Your task to perform on an android device: Search for "acer nitro" on bestbuy, select the first entry, add it to the cart, then select checkout. Image 0: 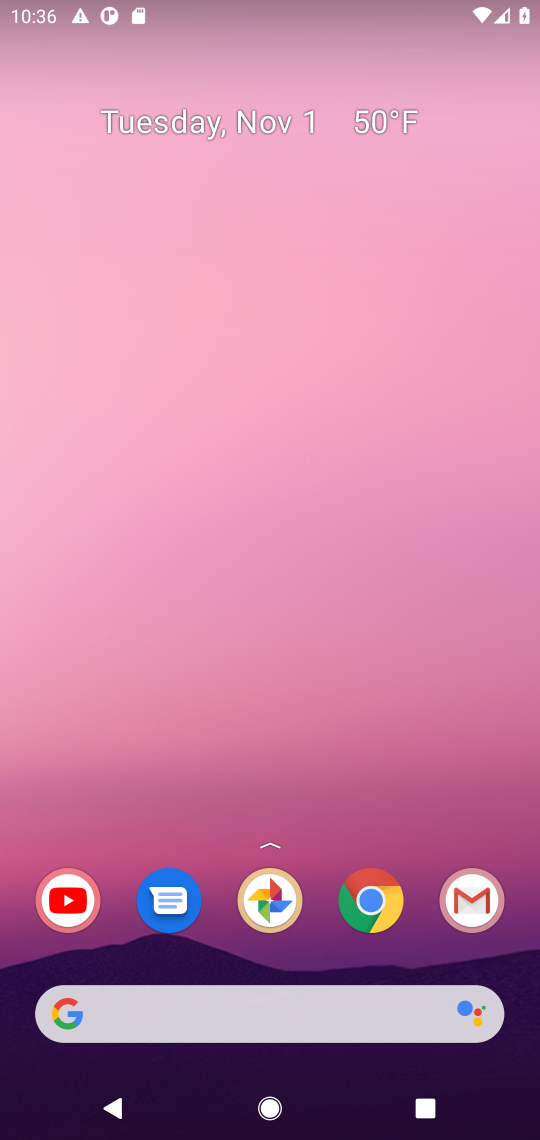
Step 0: click (369, 883)
Your task to perform on an android device: Search for "acer nitro" on bestbuy, select the first entry, add it to the cart, then select checkout. Image 1: 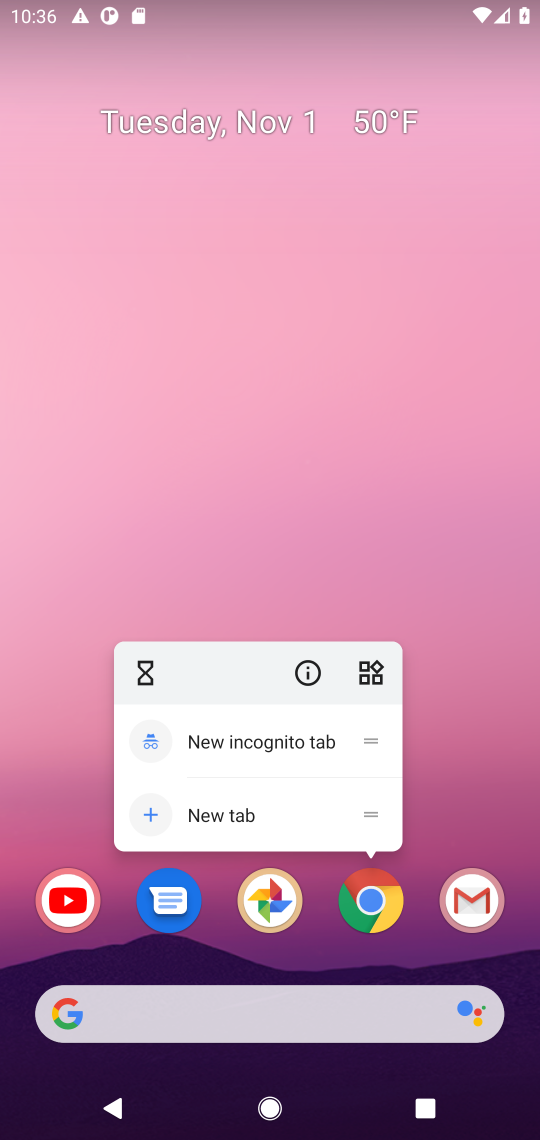
Step 1: click (369, 903)
Your task to perform on an android device: Search for "acer nitro" on bestbuy, select the first entry, add it to the cart, then select checkout. Image 2: 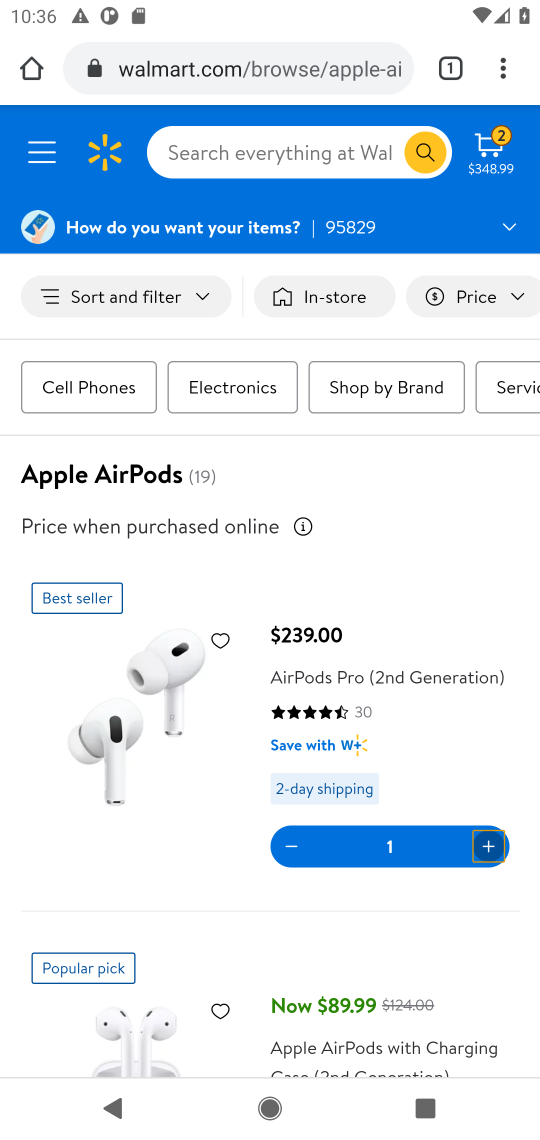
Step 2: click (209, 70)
Your task to perform on an android device: Search for "acer nitro" on bestbuy, select the first entry, add it to the cart, then select checkout. Image 3: 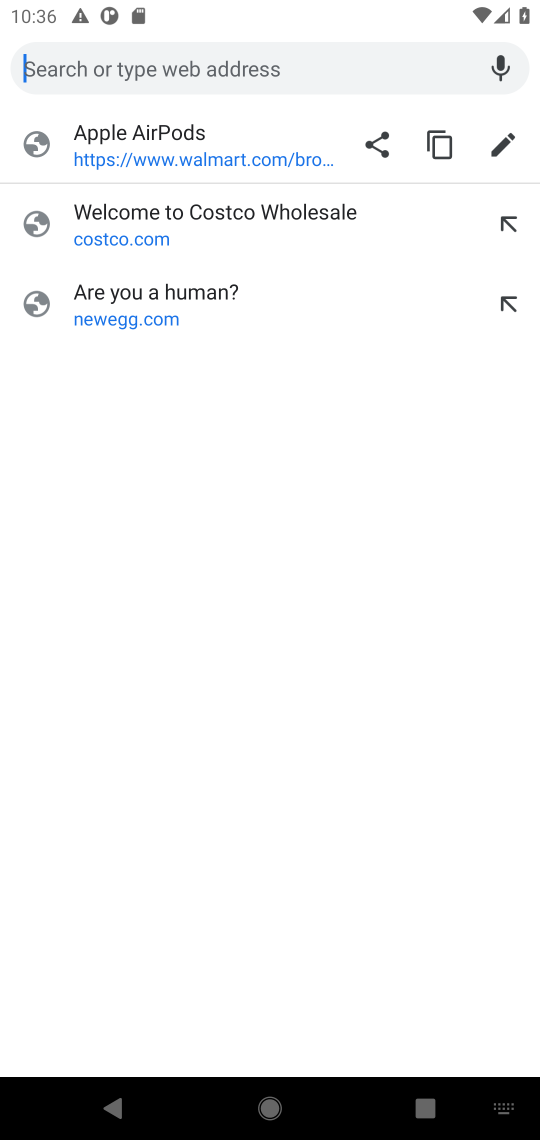
Step 3: type "bestbuy"
Your task to perform on an android device: Search for "acer nitro" on bestbuy, select the first entry, add it to the cart, then select checkout. Image 4: 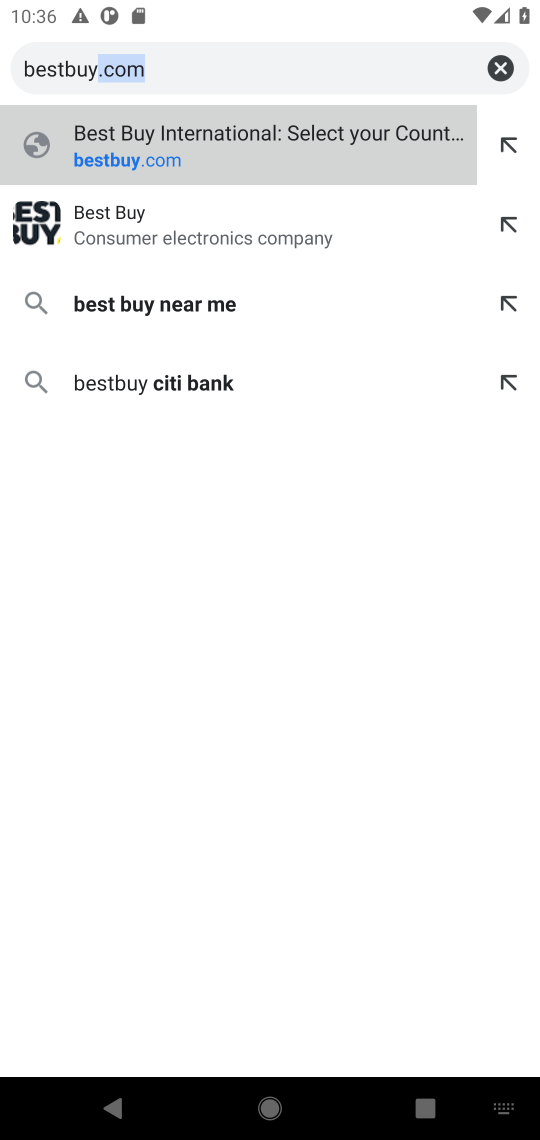
Step 4: click (156, 218)
Your task to perform on an android device: Search for "acer nitro" on bestbuy, select the first entry, add it to the cart, then select checkout. Image 5: 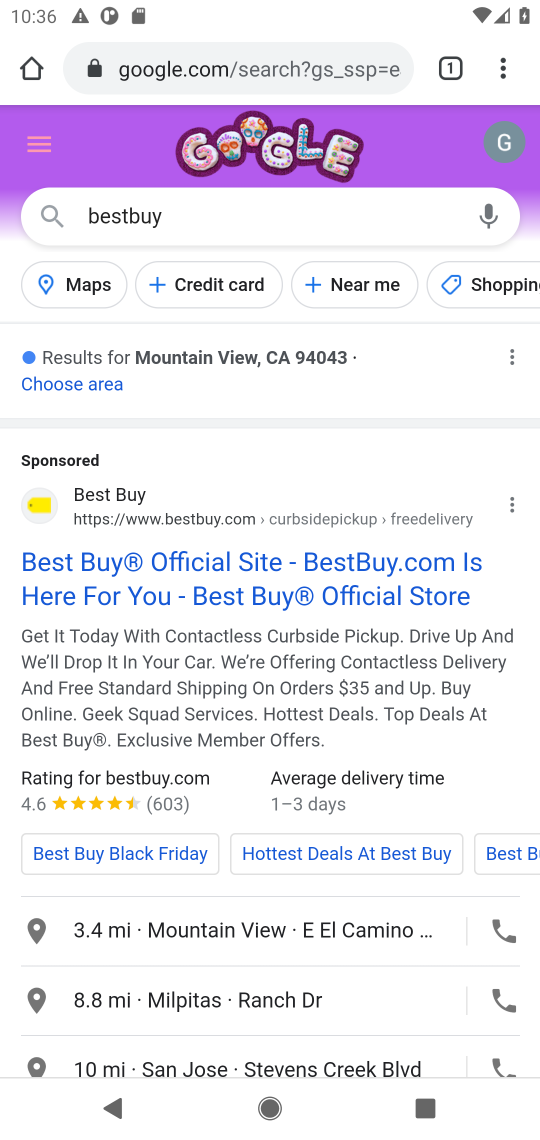
Step 5: click (217, 592)
Your task to perform on an android device: Search for "acer nitro" on bestbuy, select the first entry, add it to the cart, then select checkout. Image 6: 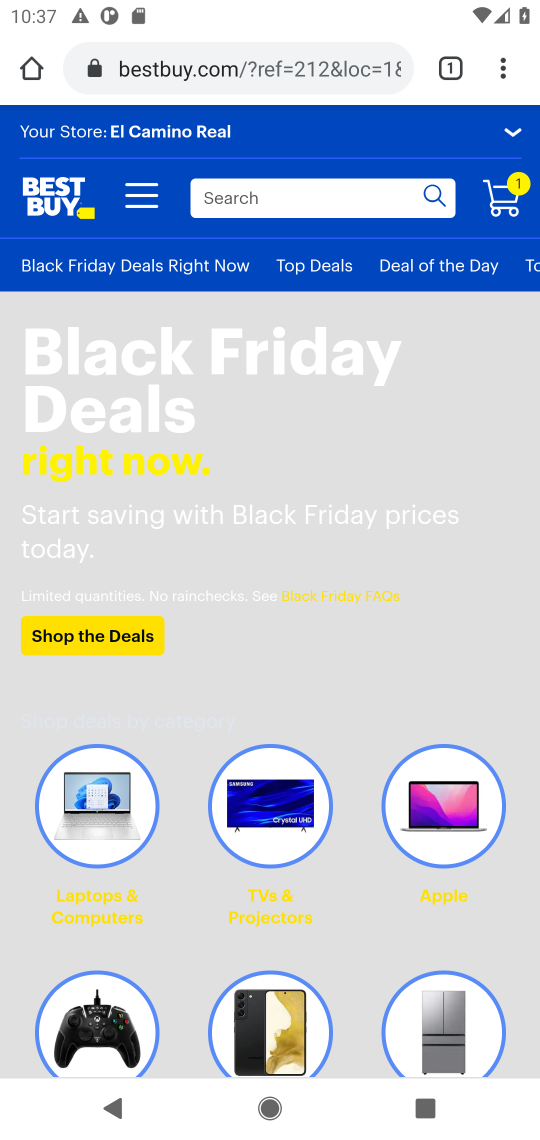
Step 6: click (291, 203)
Your task to perform on an android device: Search for "acer nitro" on bestbuy, select the first entry, add it to the cart, then select checkout. Image 7: 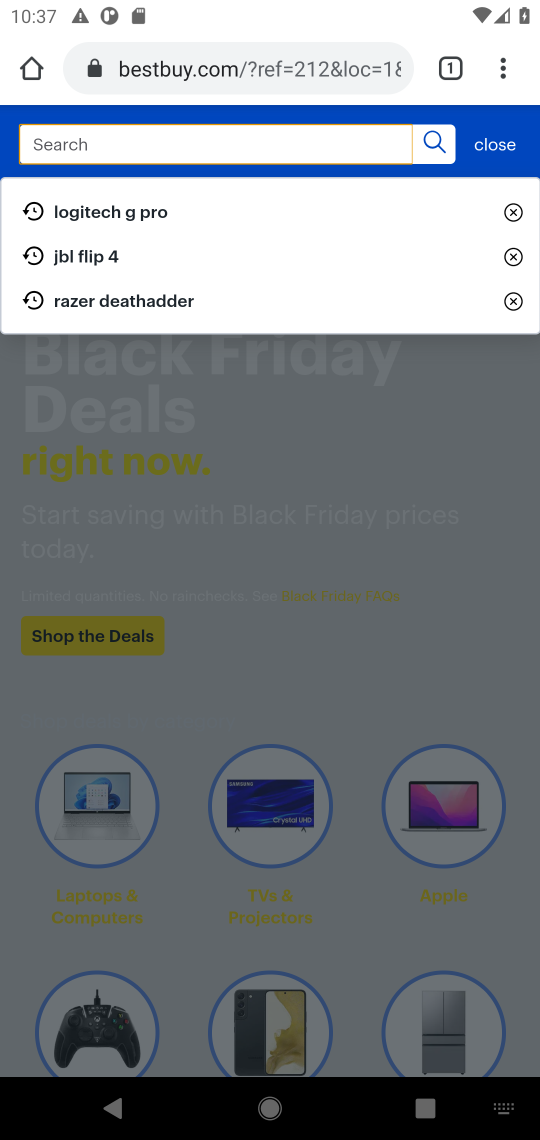
Step 7: type "acer nitro"
Your task to perform on an android device: Search for "acer nitro" on bestbuy, select the first entry, add it to the cart, then select checkout. Image 8: 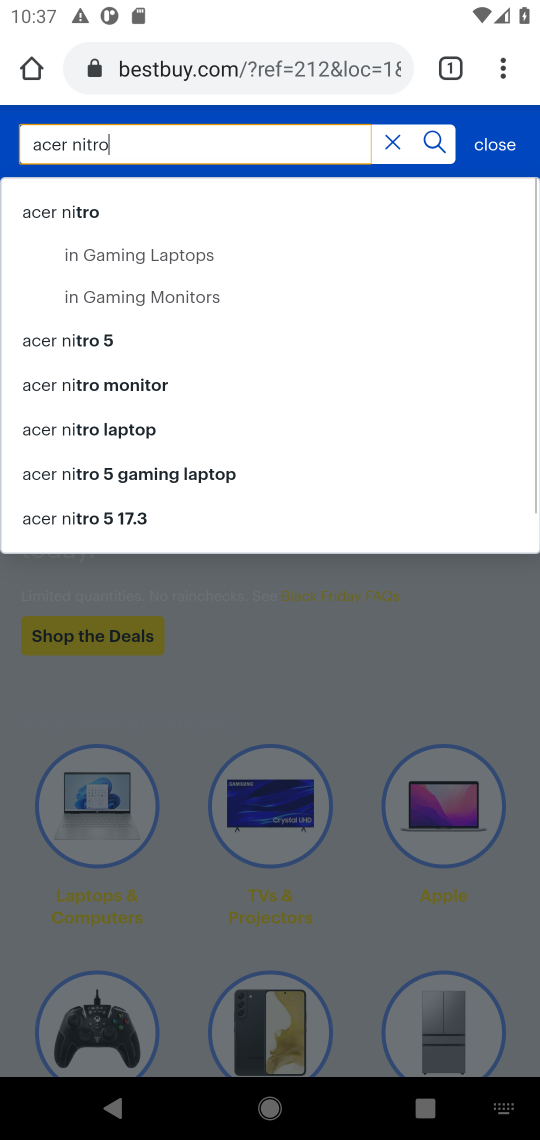
Step 8: type ""
Your task to perform on an android device: Search for "acer nitro" on bestbuy, select the first entry, add it to the cart, then select checkout. Image 9: 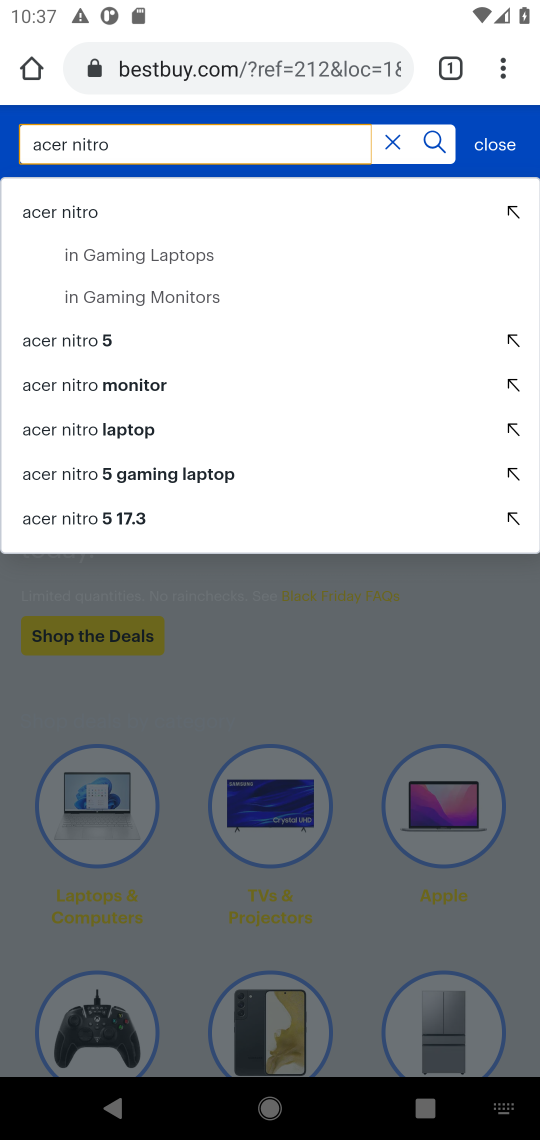
Step 9: click (435, 140)
Your task to perform on an android device: Search for "acer nitro" on bestbuy, select the first entry, add it to the cart, then select checkout. Image 10: 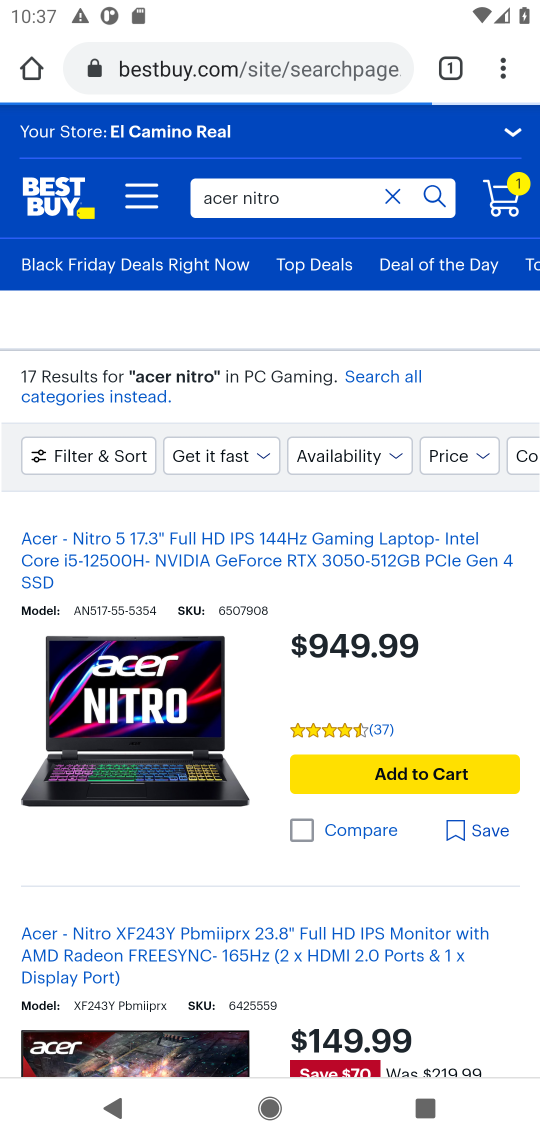
Step 10: click (332, 741)
Your task to perform on an android device: Search for "acer nitro" on bestbuy, select the first entry, add it to the cart, then select checkout. Image 11: 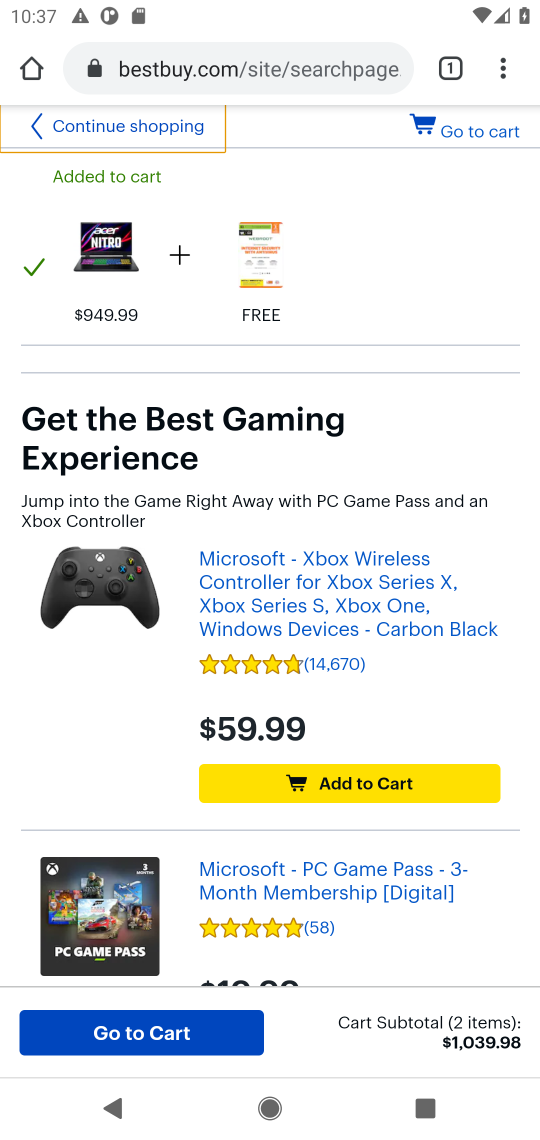
Step 11: click (166, 1030)
Your task to perform on an android device: Search for "acer nitro" on bestbuy, select the first entry, add it to the cart, then select checkout. Image 12: 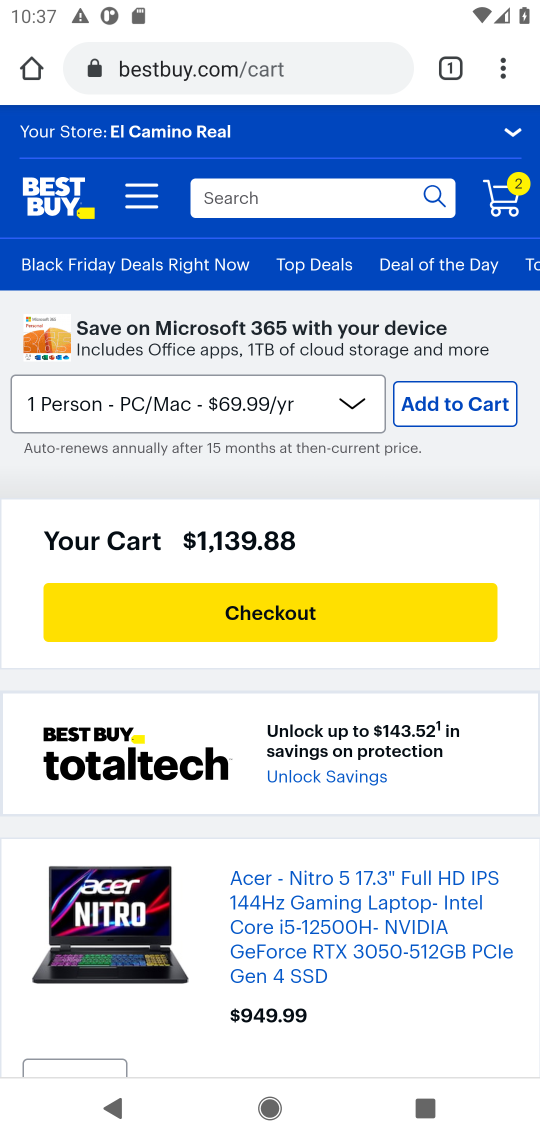
Step 12: click (387, 631)
Your task to perform on an android device: Search for "acer nitro" on bestbuy, select the first entry, add it to the cart, then select checkout. Image 13: 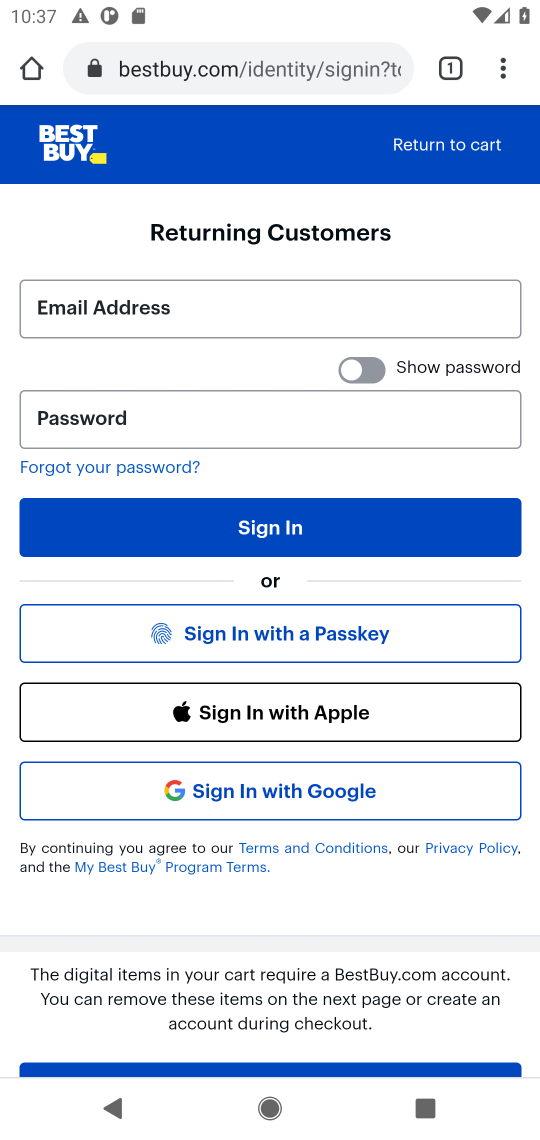
Step 13: task complete